Your task to perform on an android device: change the clock display to show seconds Image 0: 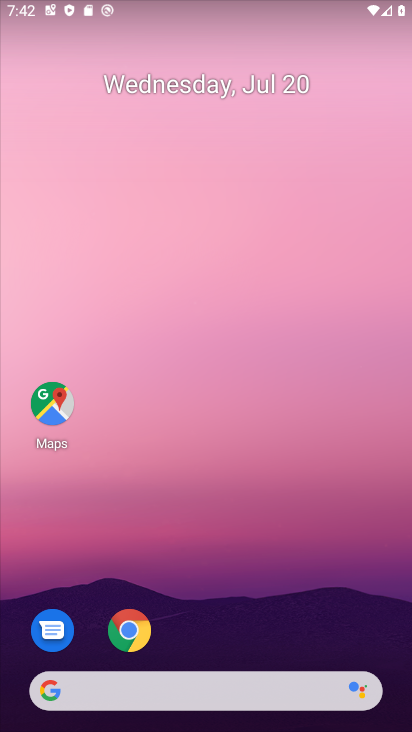
Step 0: drag from (215, 673) to (176, 153)
Your task to perform on an android device: change the clock display to show seconds Image 1: 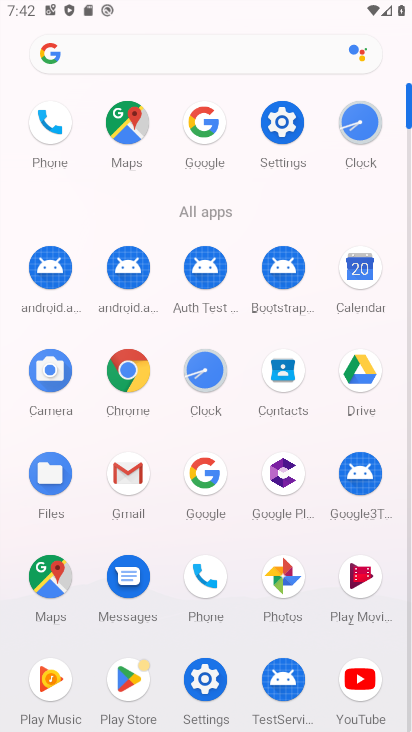
Step 1: click (361, 164)
Your task to perform on an android device: change the clock display to show seconds Image 2: 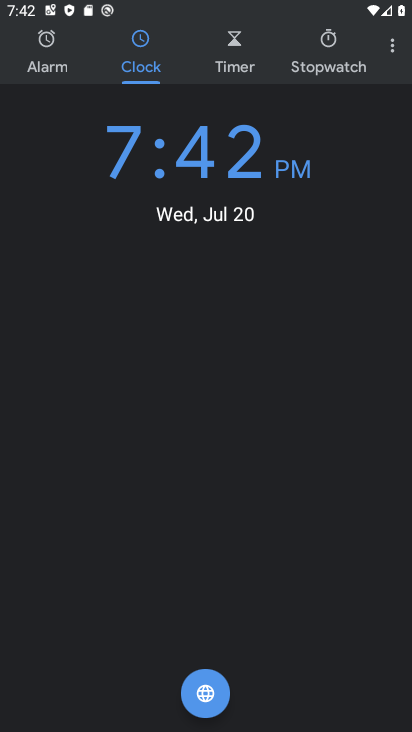
Step 2: click (392, 53)
Your task to perform on an android device: change the clock display to show seconds Image 3: 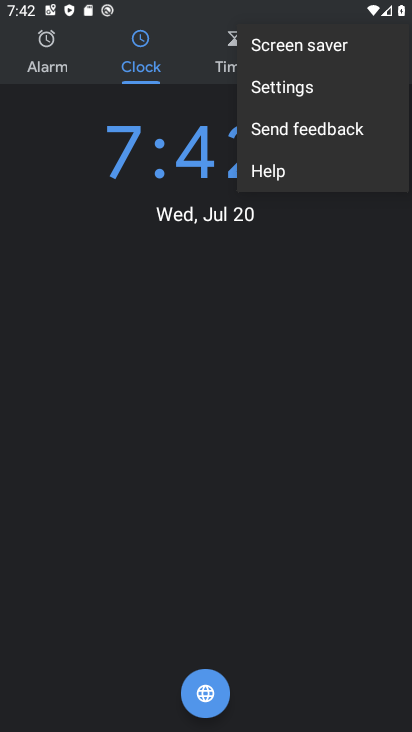
Step 3: click (268, 92)
Your task to perform on an android device: change the clock display to show seconds Image 4: 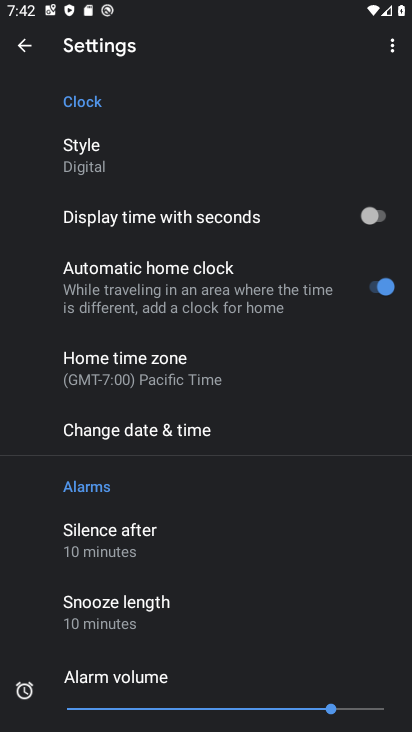
Step 4: click (368, 224)
Your task to perform on an android device: change the clock display to show seconds Image 5: 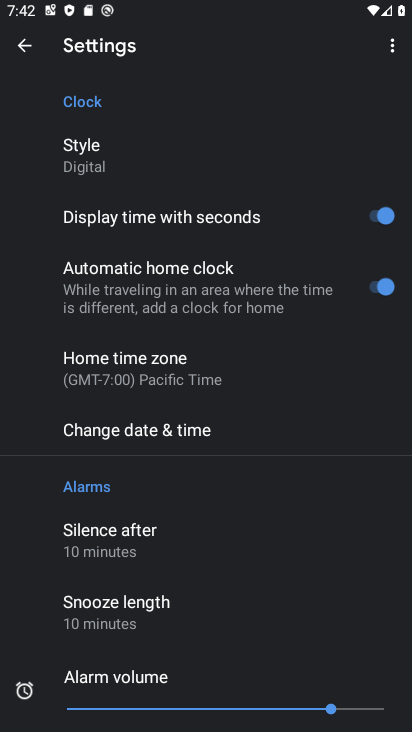
Step 5: task complete